Your task to perform on an android device: Open the calendar and show me this week's events? Image 0: 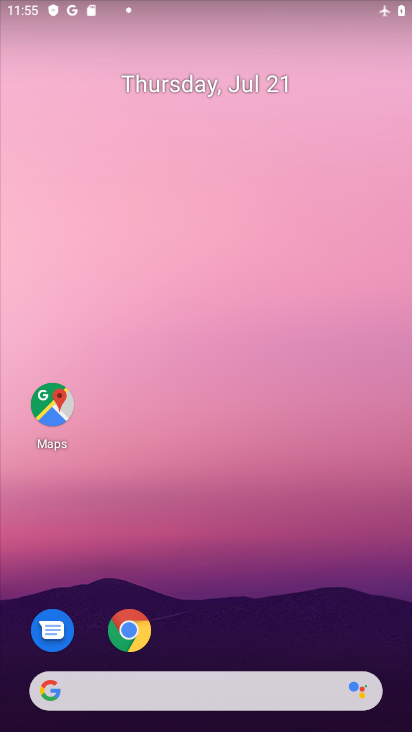
Step 0: drag from (219, 677) to (182, 190)
Your task to perform on an android device: Open the calendar and show me this week's events? Image 1: 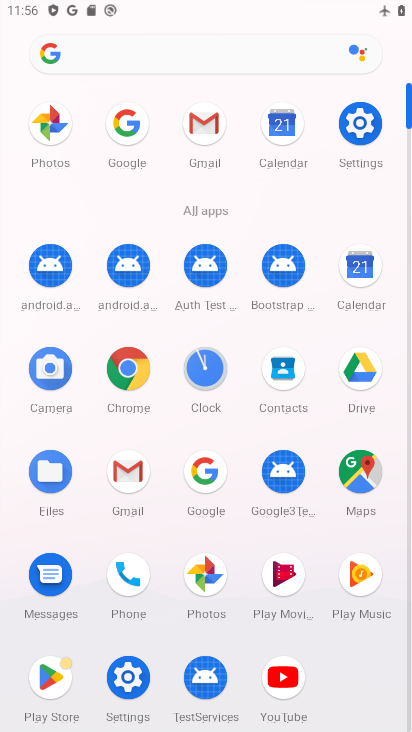
Step 1: click (357, 271)
Your task to perform on an android device: Open the calendar and show me this week's events? Image 2: 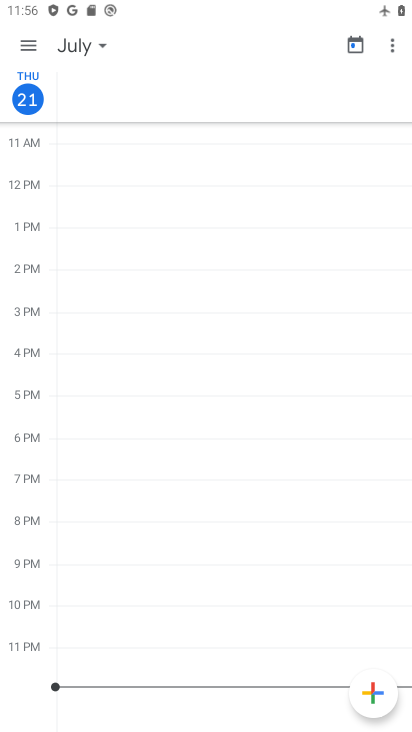
Step 2: click (37, 55)
Your task to perform on an android device: Open the calendar and show me this week's events? Image 3: 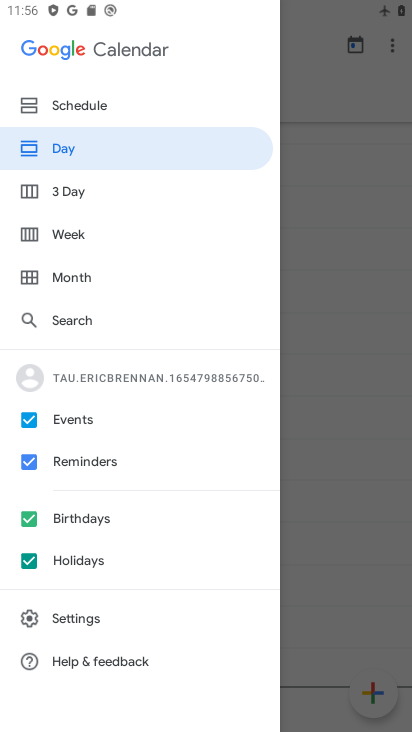
Step 3: click (58, 237)
Your task to perform on an android device: Open the calendar and show me this week's events? Image 4: 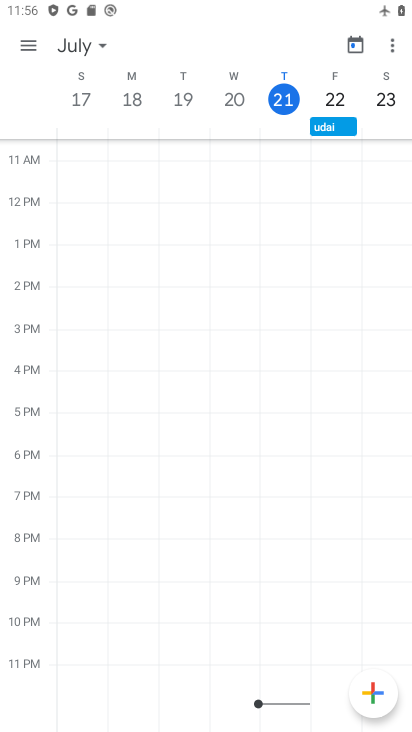
Step 4: task complete